Your task to perform on an android device: choose inbox layout in the gmail app Image 0: 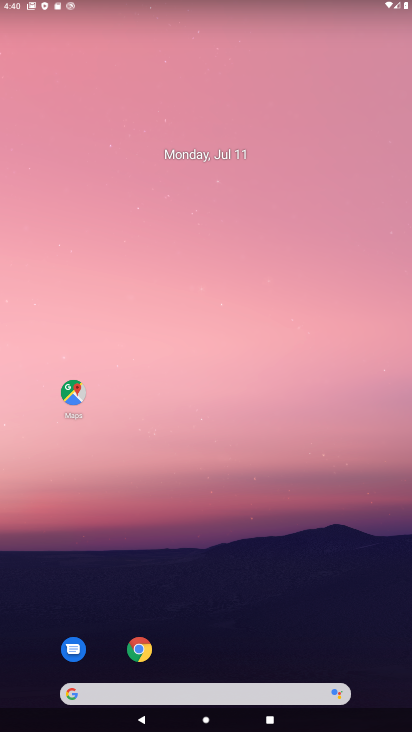
Step 0: drag from (282, 611) to (224, 71)
Your task to perform on an android device: choose inbox layout in the gmail app Image 1: 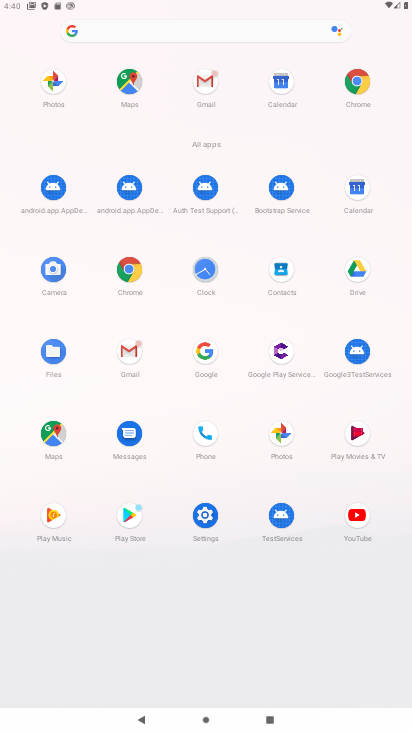
Step 1: click (203, 84)
Your task to perform on an android device: choose inbox layout in the gmail app Image 2: 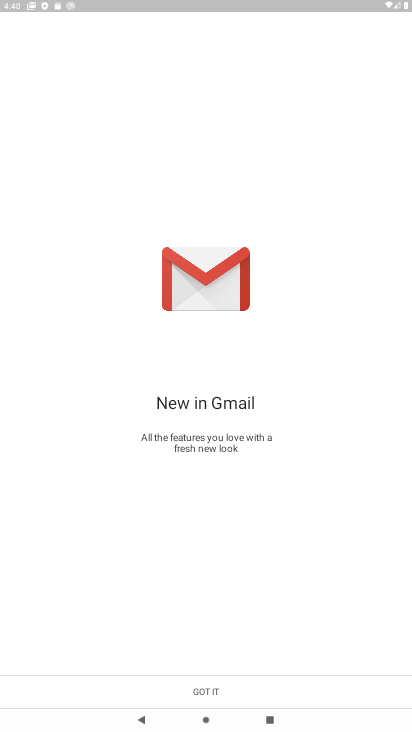
Step 2: click (222, 687)
Your task to perform on an android device: choose inbox layout in the gmail app Image 3: 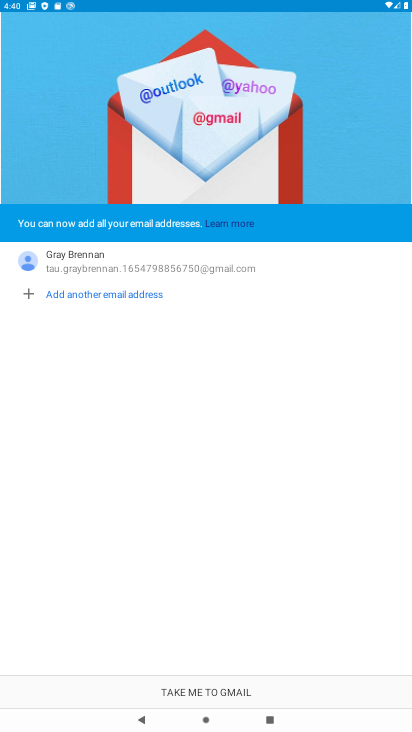
Step 3: click (221, 690)
Your task to perform on an android device: choose inbox layout in the gmail app Image 4: 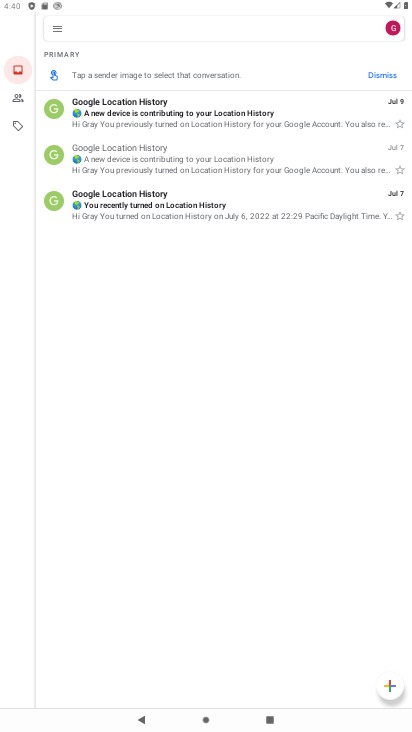
Step 4: click (58, 36)
Your task to perform on an android device: choose inbox layout in the gmail app Image 5: 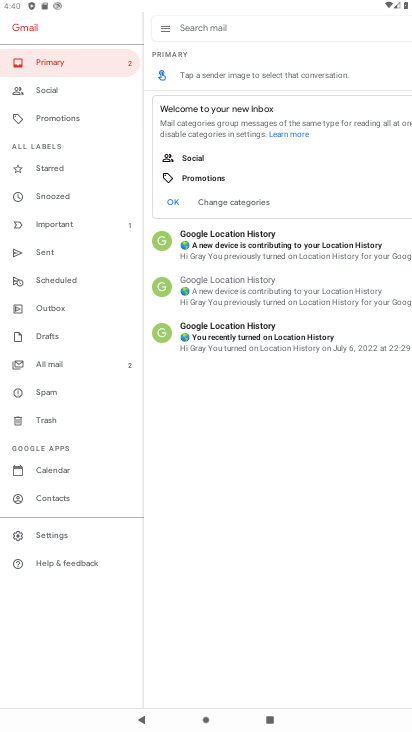
Step 5: click (59, 529)
Your task to perform on an android device: choose inbox layout in the gmail app Image 6: 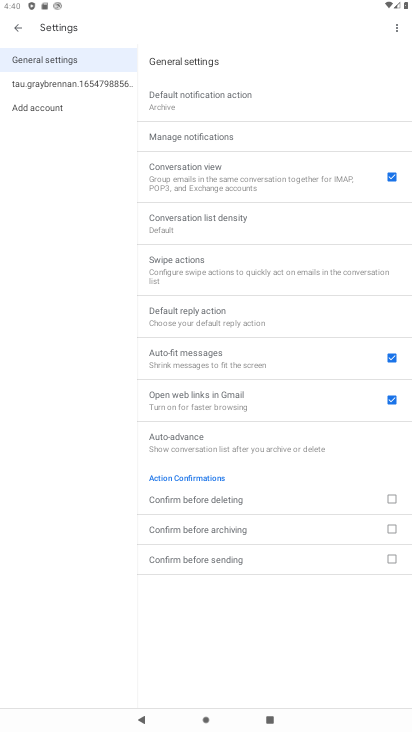
Step 6: click (80, 83)
Your task to perform on an android device: choose inbox layout in the gmail app Image 7: 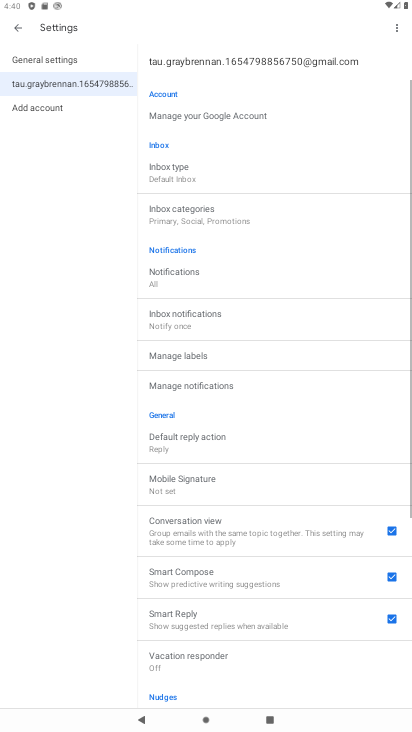
Step 7: click (174, 175)
Your task to perform on an android device: choose inbox layout in the gmail app Image 8: 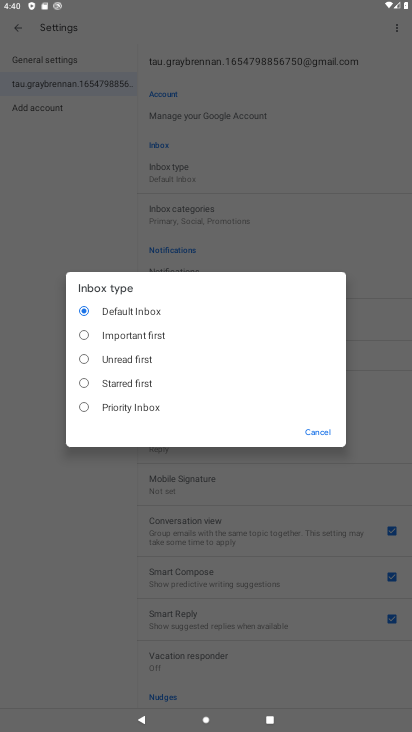
Step 8: task complete